Your task to perform on an android device: Open Google Chrome Image 0: 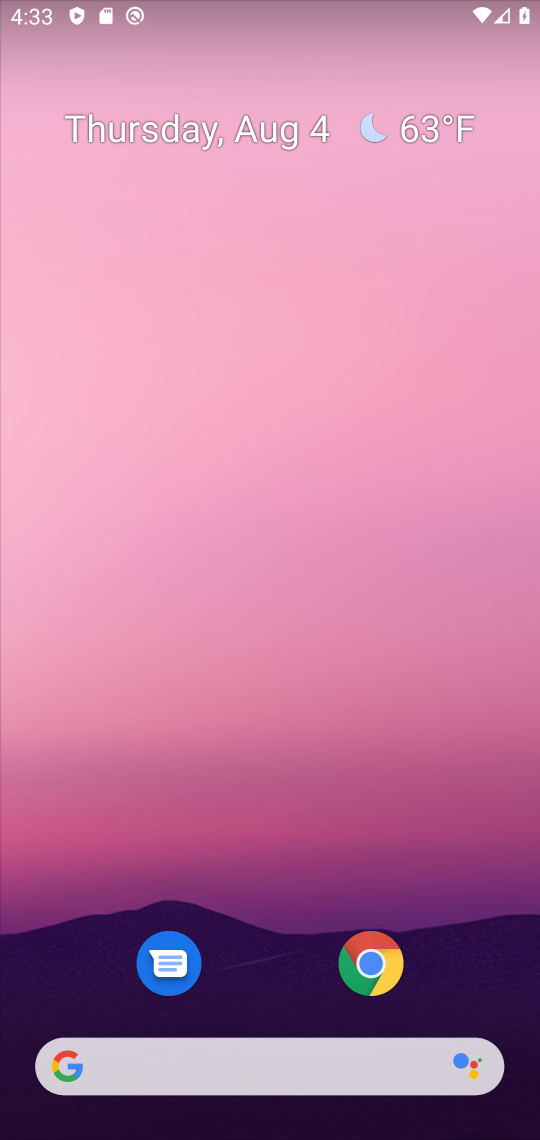
Step 0: click (366, 962)
Your task to perform on an android device: Open Google Chrome Image 1: 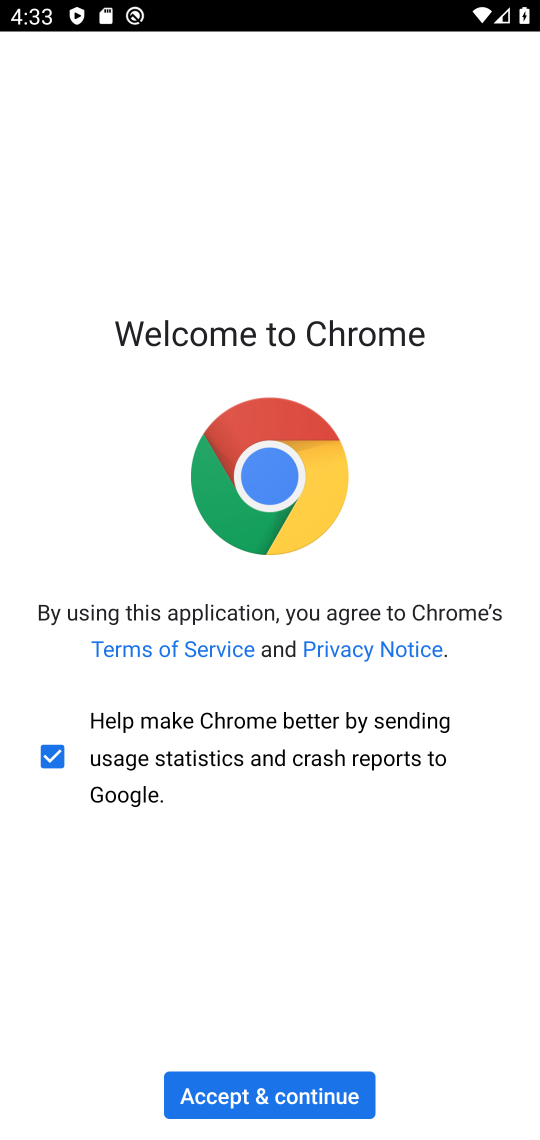
Step 1: click (262, 1079)
Your task to perform on an android device: Open Google Chrome Image 2: 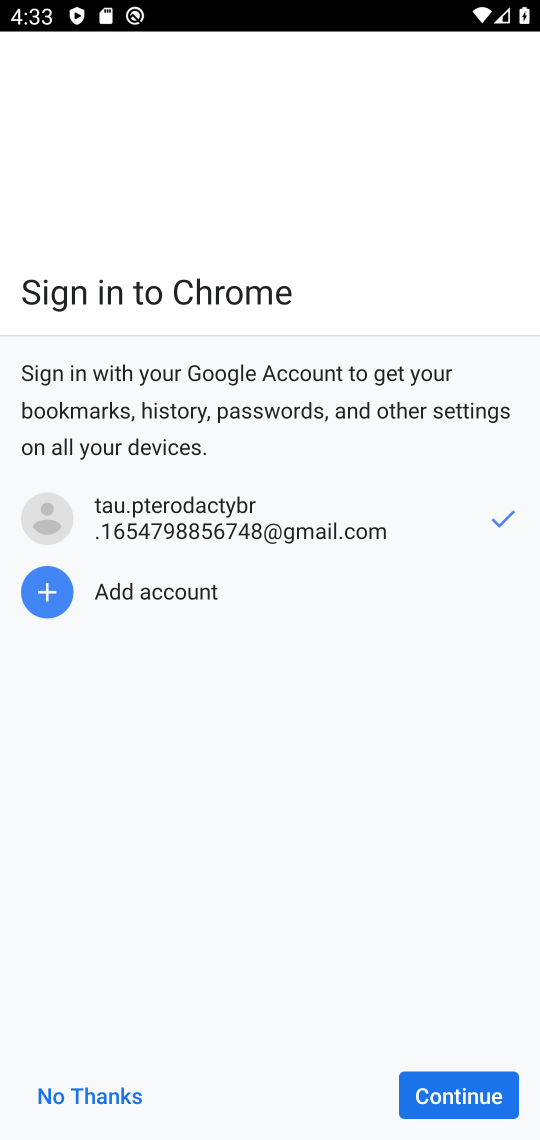
Step 2: click (467, 1094)
Your task to perform on an android device: Open Google Chrome Image 3: 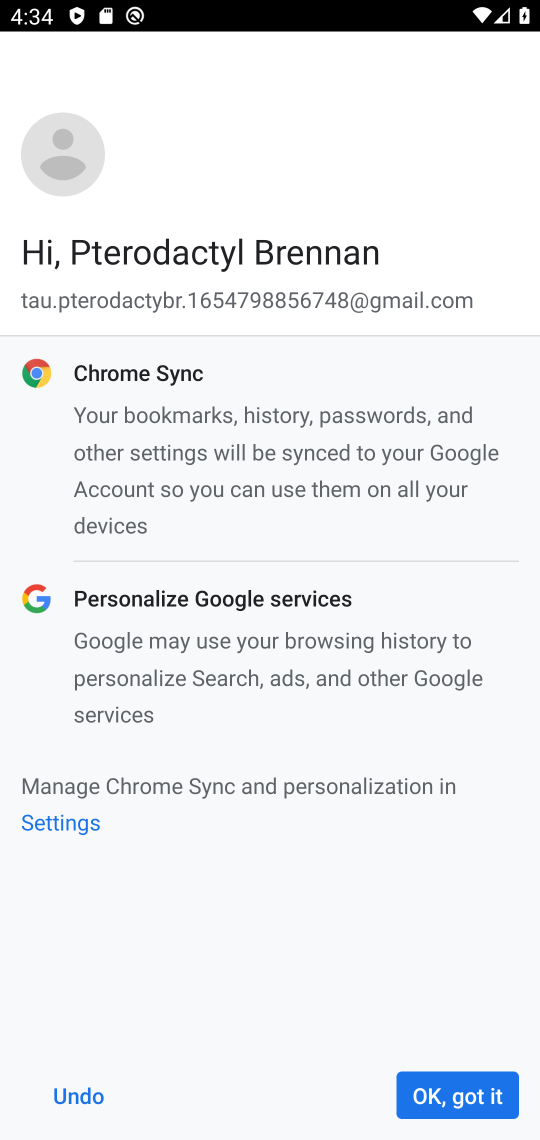
Step 3: click (433, 1092)
Your task to perform on an android device: Open Google Chrome Image 4: 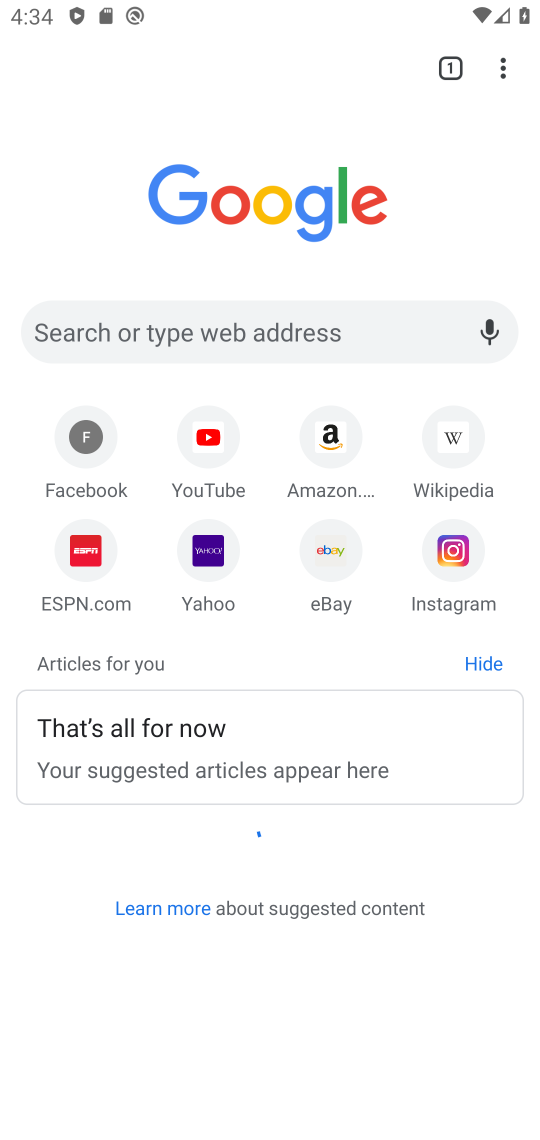
Step 4: task complete